Your task to perform on an android device: Go to ESPN.com Image 0: 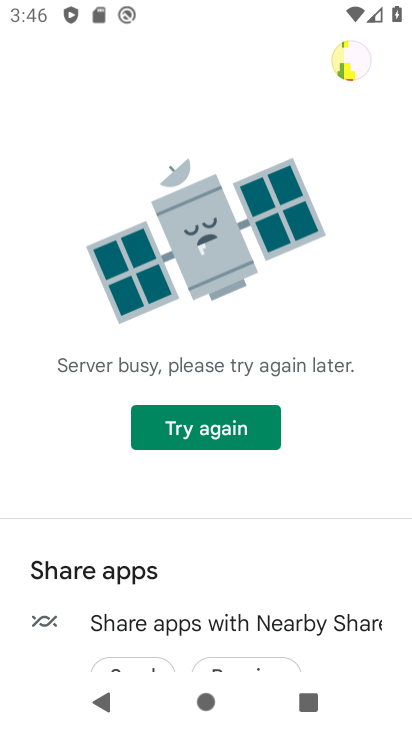
Step 0: press home button
Your task to perform on an android device: Go to ESPN.com Image 1: 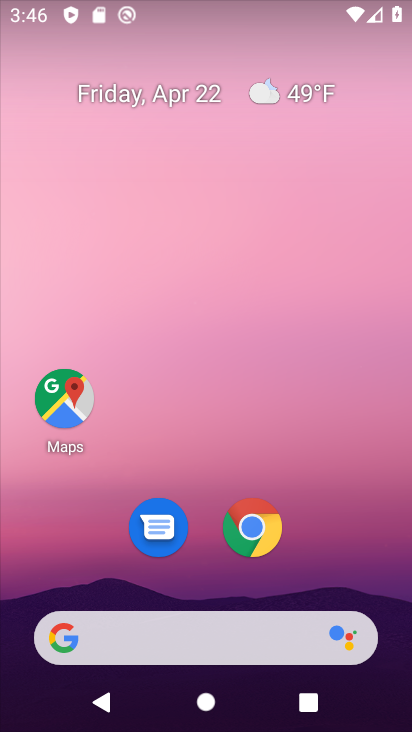
Step 1: click (272, 518)
Your task to perform on an android device: Go to ESPN.com Image 2: 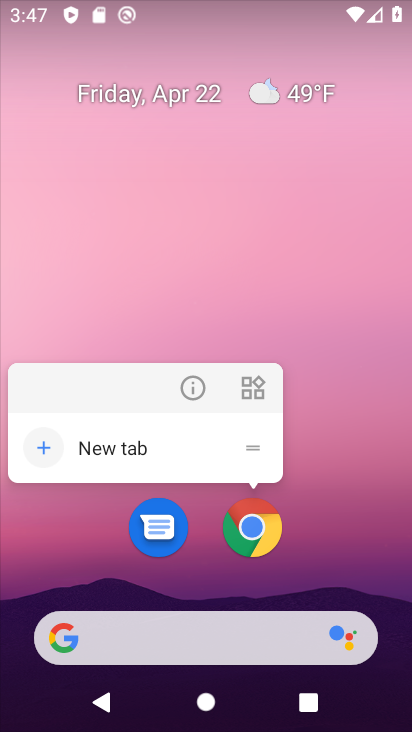
Step 2: click (254, 536)
Your task to perform on an android device: Go to ESPN.com Image 3: 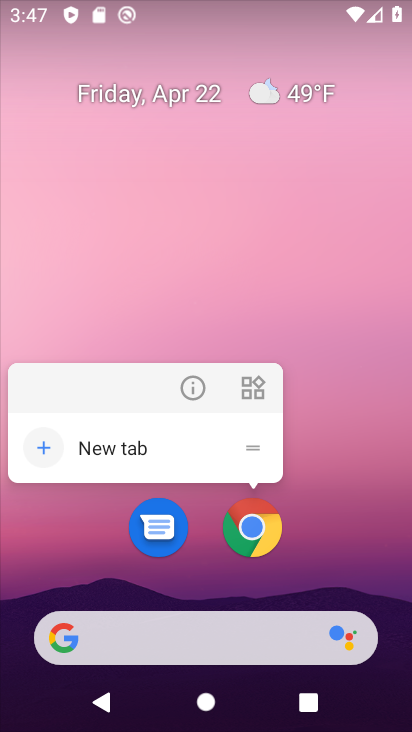
Step 3: click (254, 536)
Your task to perform on an android device: Go to ESPN.com Image 4: 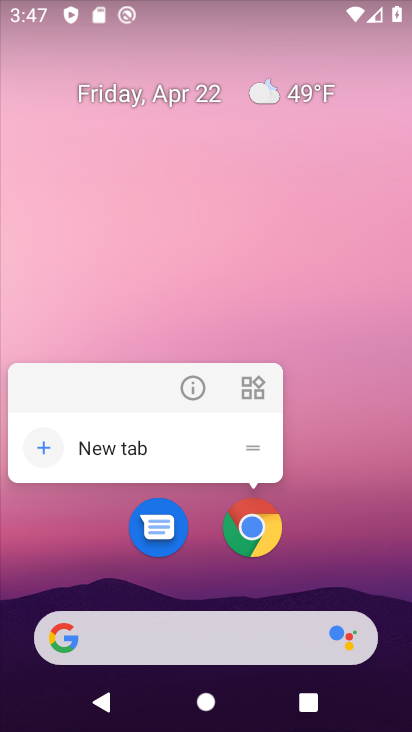
Step 4: click (255, 536)
Your task to perform on an android device: Go to ESPN.com Image 5: 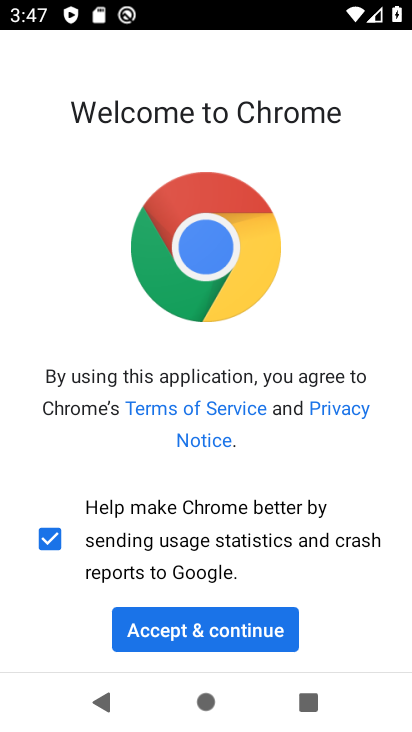
Step 5: click (214, 633)
Your task to perform on an android device: Go to ESPN.com Image 6: 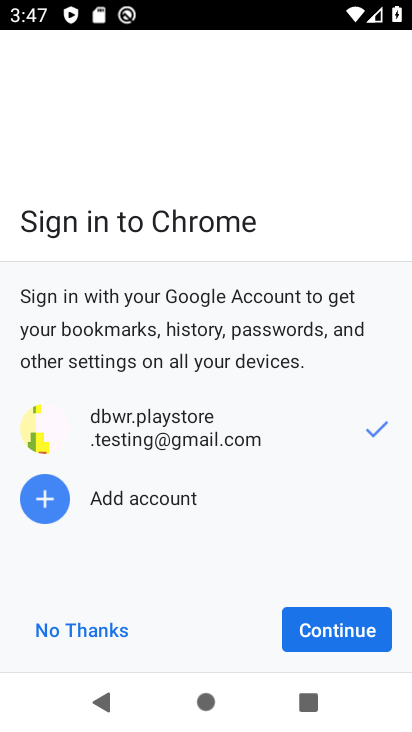
Step 6: click (312, 627)
Your task to perform on an android device: Go to ESPN.com Image 7: 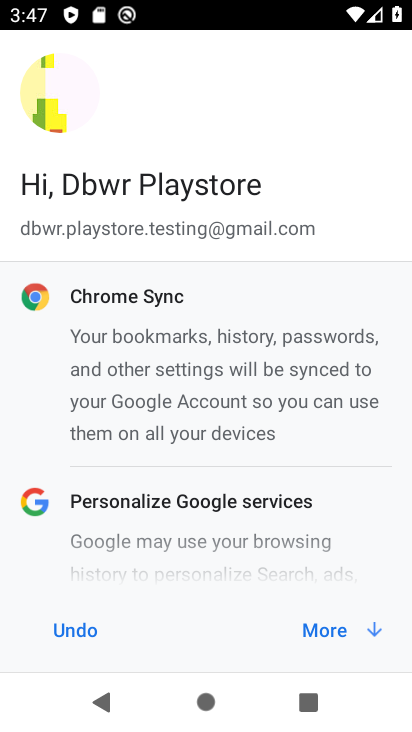
Step 7: click (311, 627)
Your task to perform on an android device: Go to ESPN.com Image 8: 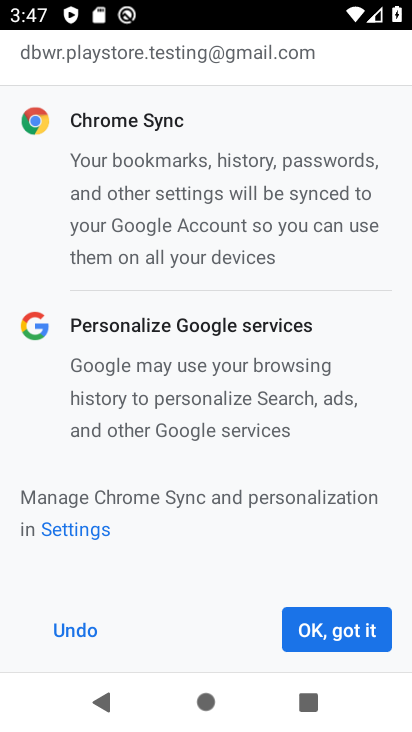
Step 8: click (311, 627)
Your task to perform on an android device: Go to ESPN.com Image 9: 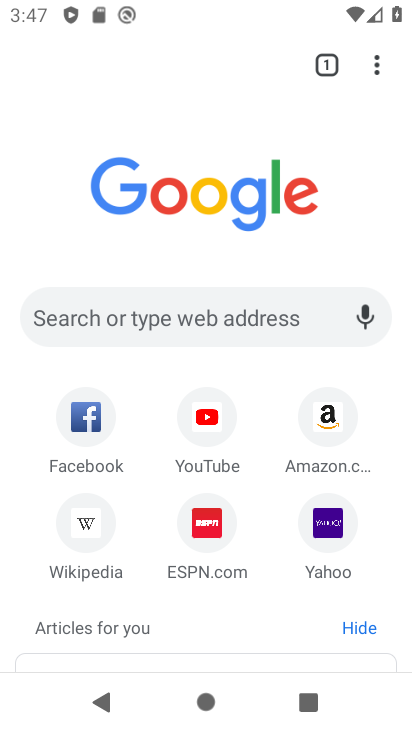
Step 9: click (200, 311)
Your task to perform on an android device: Go to ESPN.com Image 10: 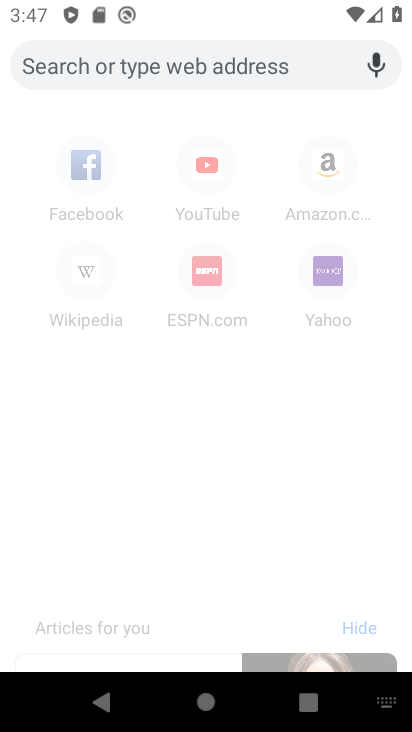
Step 10: type "espn.com"
Your task to perform on an android device: Go to ESPN.com Image 11: 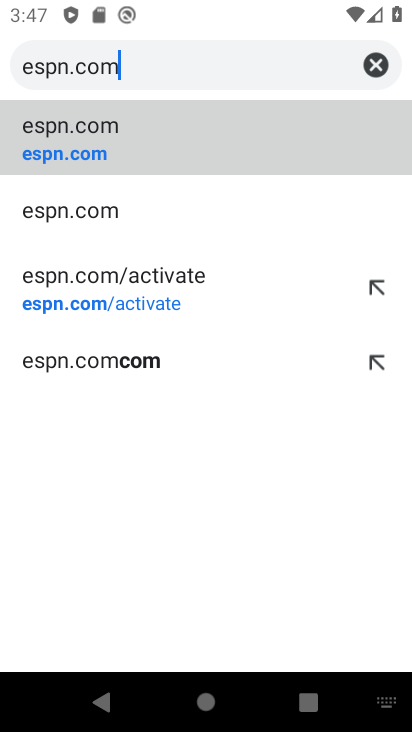
Step 11: click (109, 135)
Your task to perform on an android device: Go to ESPN.com Image 12: 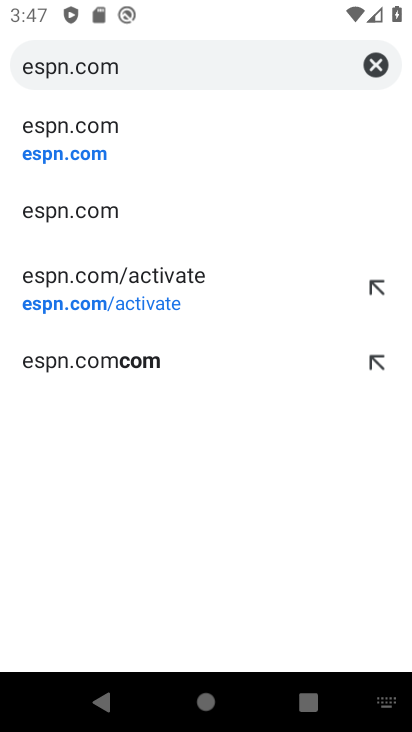
Step 12: click (110, 126)
Your task to perform on an android device: Go to ESPN.com Image 13: 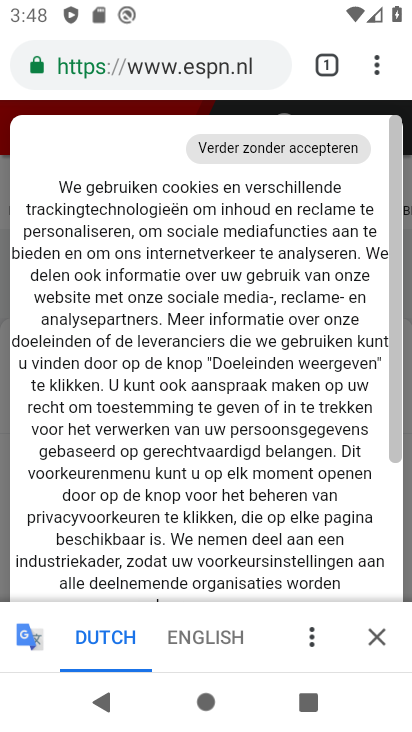
Step 13: task complete